Your task to perform on an android device: set the stopwatch Image 0: 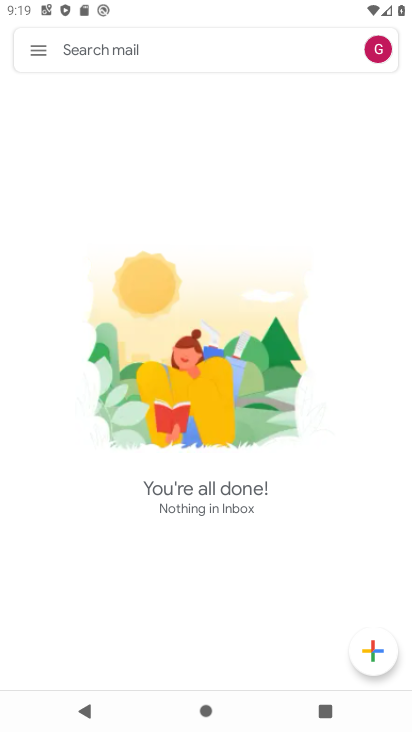
Step 0: press home button
Your task to perform on an android device: set the stopwatch Image 1: 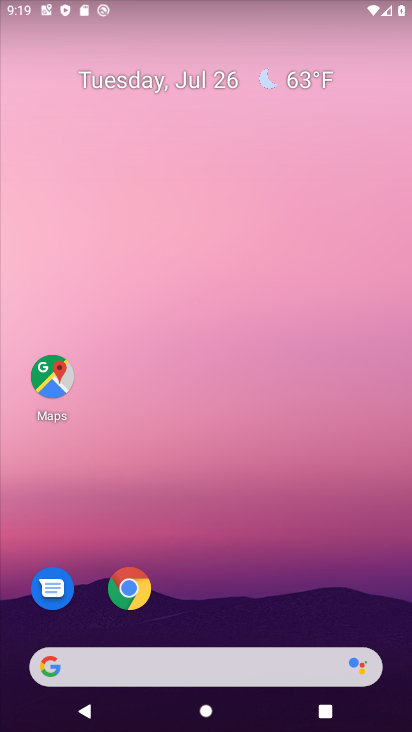
Step 1: drag from (206, 597) to (278, 163)
Your task to perform on an android device: set the stopwatch Image 2: 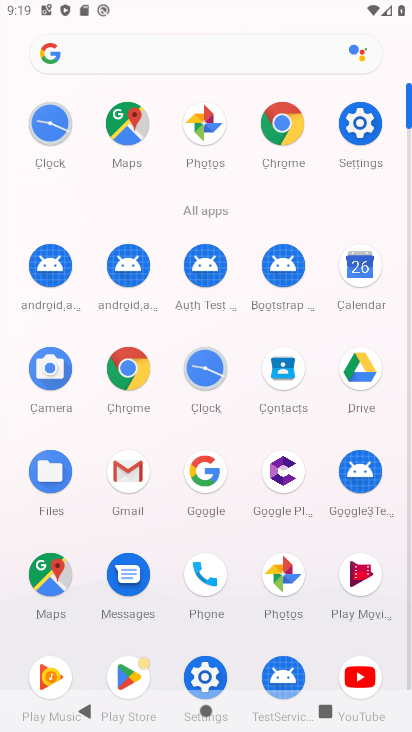
Step 2: click (198, 383)
Your task to perform on an android device: set the stopwatch Image 3: 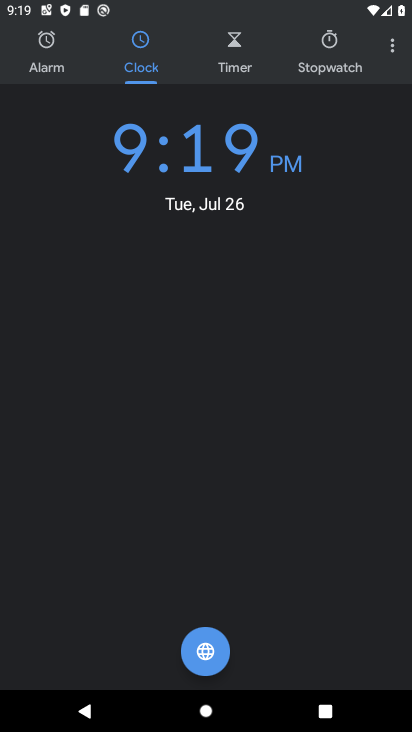
Step 3: click (328, 40)
Your task to perform on an android device: set the stopwatch Image 4: 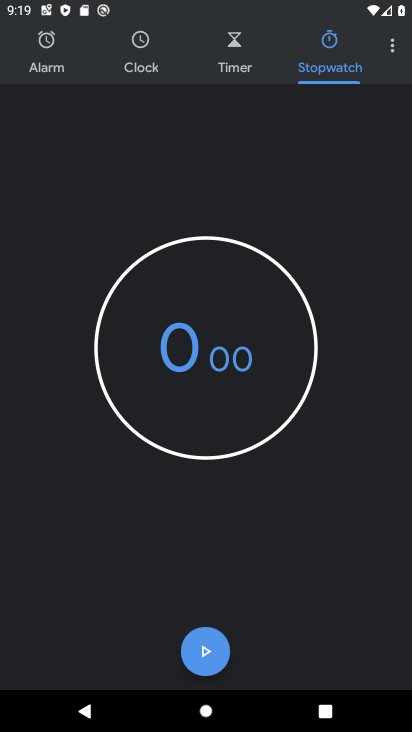
Step 4: click (192, 645)
Your task to perform on an android device: set the stopwatch Image 5: 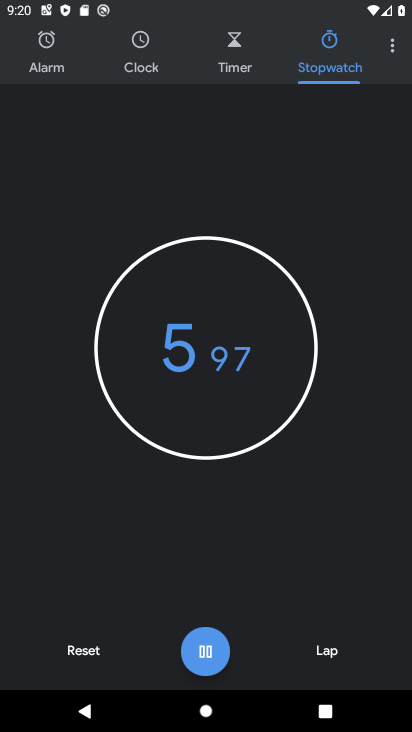
Step 5: task complete